Your task to perform on an android device: turn notification dots off Image 0: 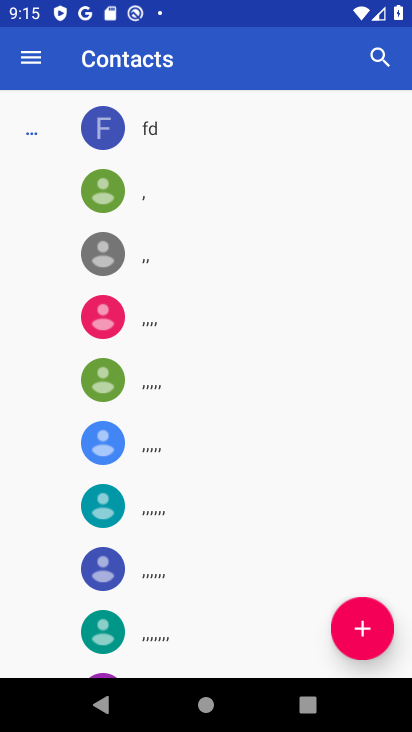
Step 0: press home button
Your task to perform on an android device: turn notification dots off Image 1: 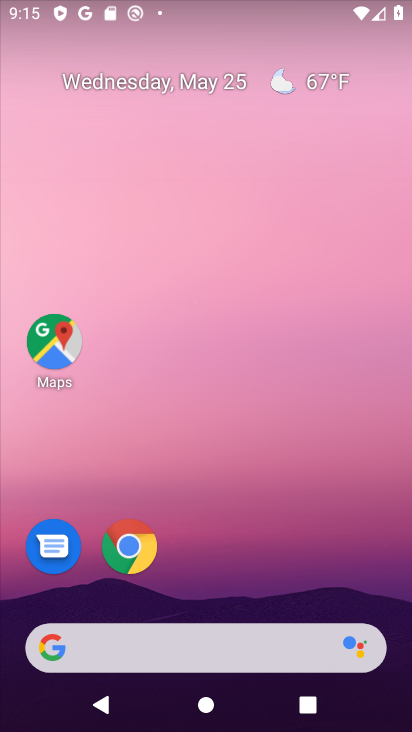
Step 1: drag from (165, 621) to (236, 163)
Your task to perform on an android device: turn notification dots off Image 2: 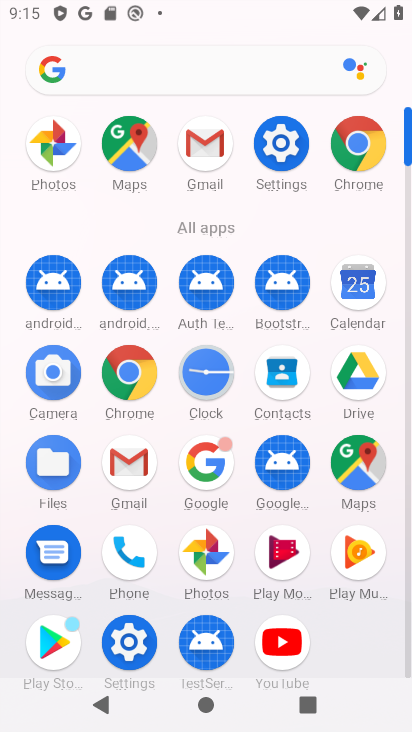
Step 2: drag from (184, 626) to (219, 395)
Your task to perform on an android device: turn notification dots off Image 3: 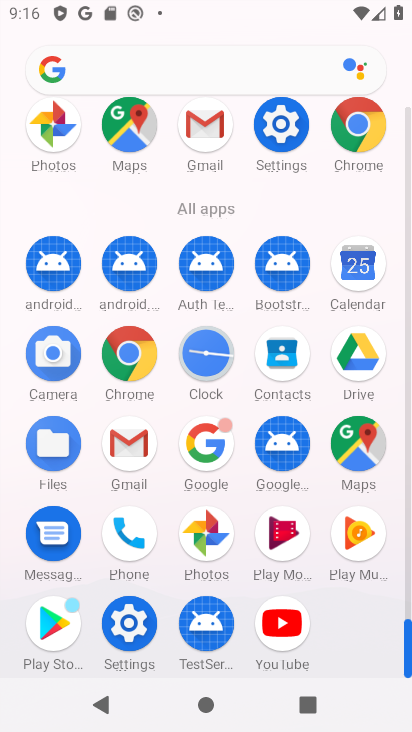
Step 3: click (127, 630)
Your task to perform on an android device: turn notification dots off Image 4: 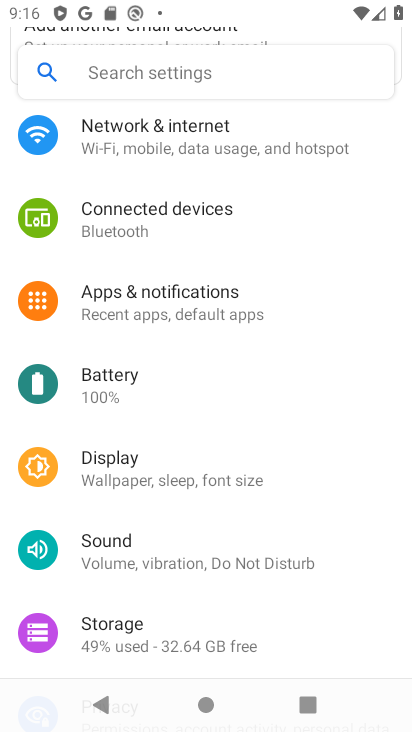
Step 4: drag from (189, 623) to (224, 690)
Your task to perform on an android device: turn notification dots off Image 5: 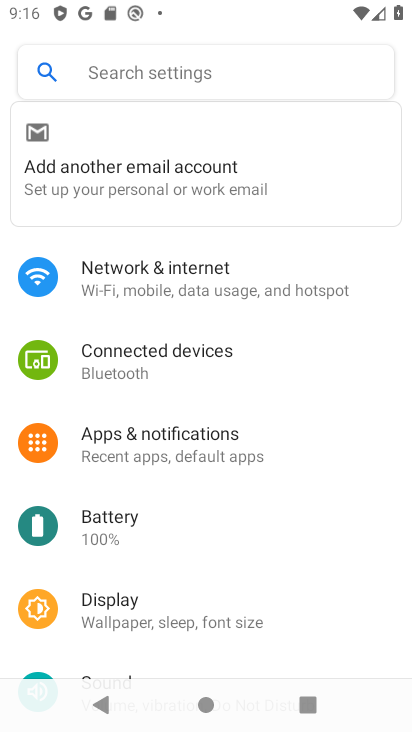
Step 5: click (256, 448)
Your task to perform on an android device: turn notification dots off Image 6: 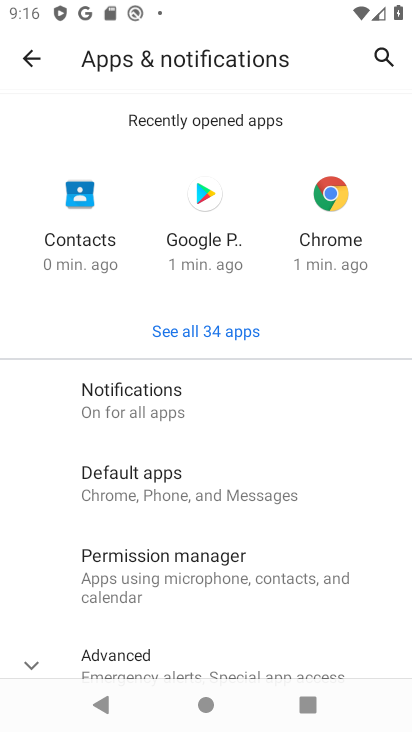
Step 6: click (198, 398)
Your task to perform on an android device: turn notification dots off Image 7: 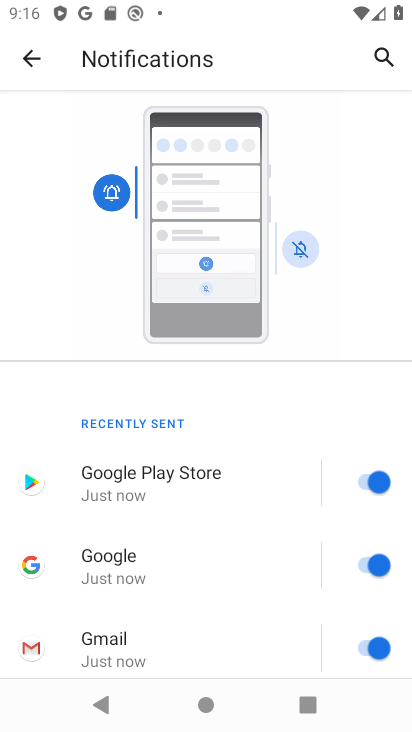
Step 7: drag from (174, 610) to (286, 140)
Your task to perform on an android device: turn notification dots off Image 8: 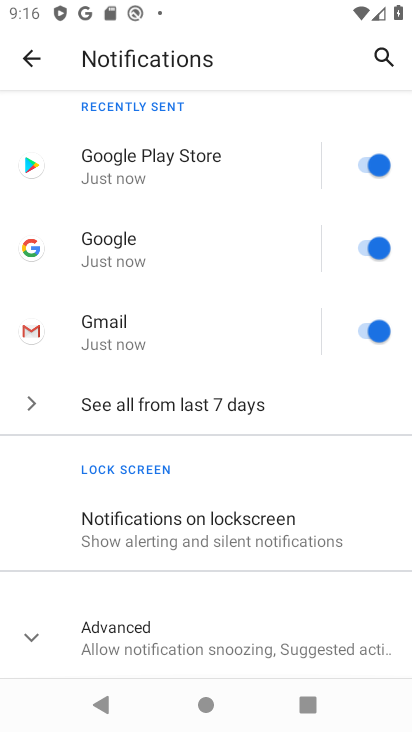
Step 8: click (223, 661)
Your task to perform on an android device: turn notification dots off Image 9: 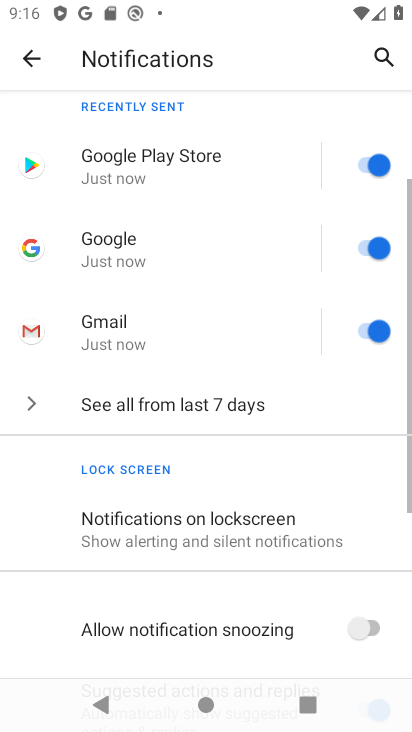
Step 9: drag from (222, 660) to (287, 302)
Your task to perform on an android device: turn notification dots off Image 10: 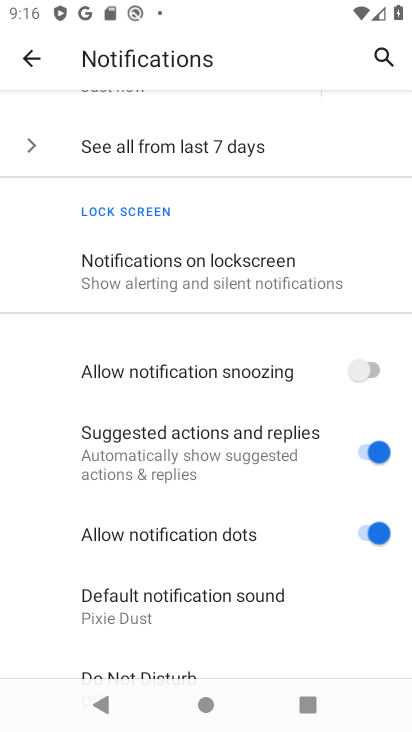
Step 10: click (360, 533)
Your task to perform on an android device: turn notification dots off Image 11: 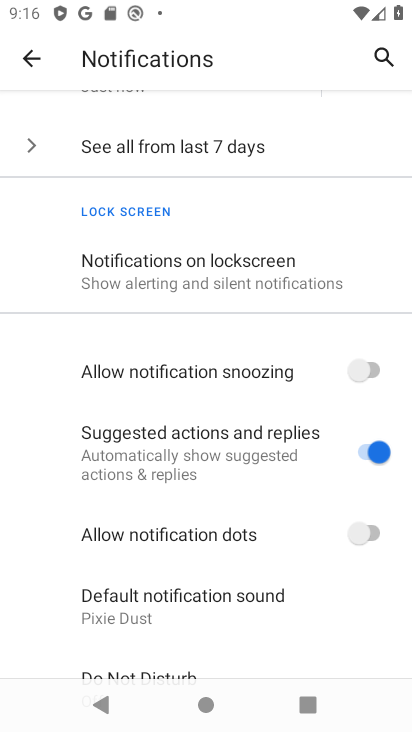
Step 11: task complete